Your task to perform on an android device: clear history in the chrome app Image 0: 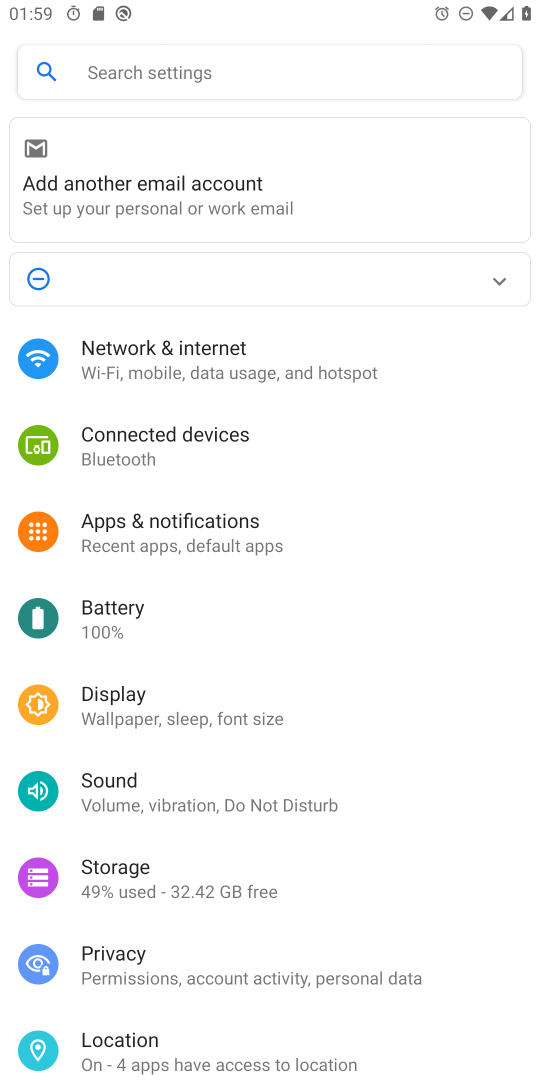
Step 0: press home button
Your task to perform on an android device: clear history in the chrome app Image 1: 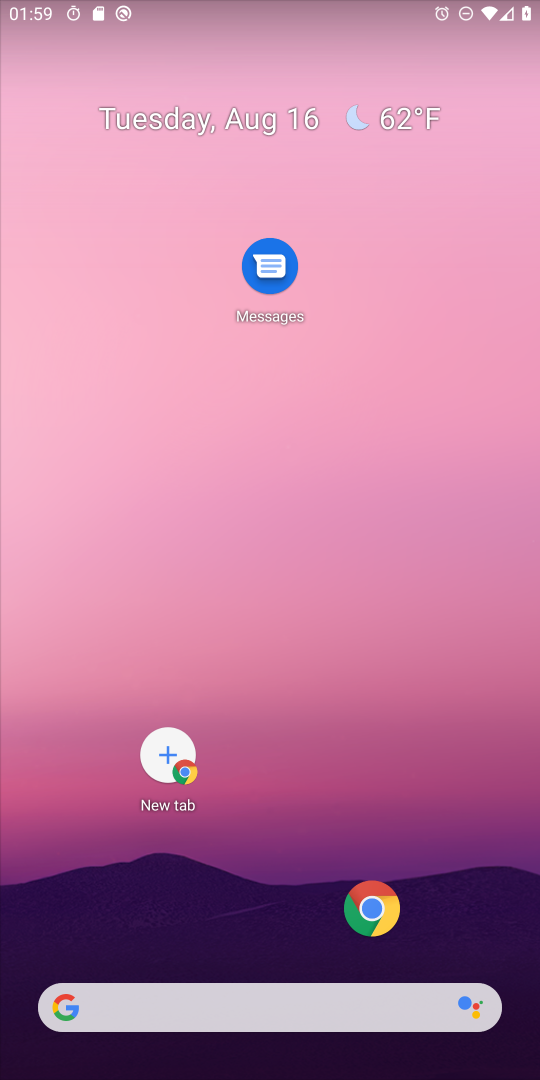
Step 1: click (354, 895)
Your task to perform on an android device: clear history in the chrome app Image 2: 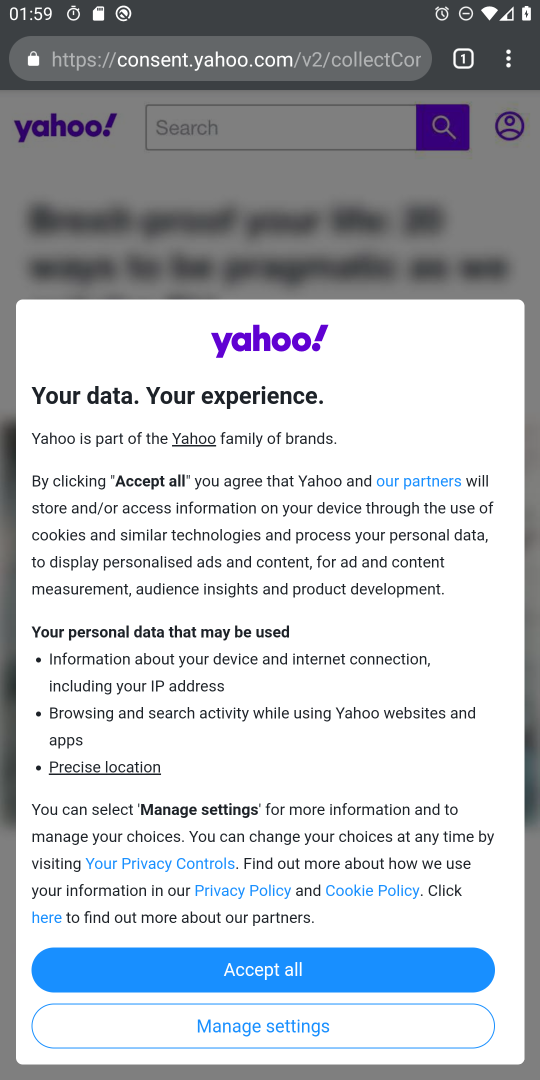
Step 2: click (523, 67)
Your task to perform on an android device: clear history in the chrome app Image 3: 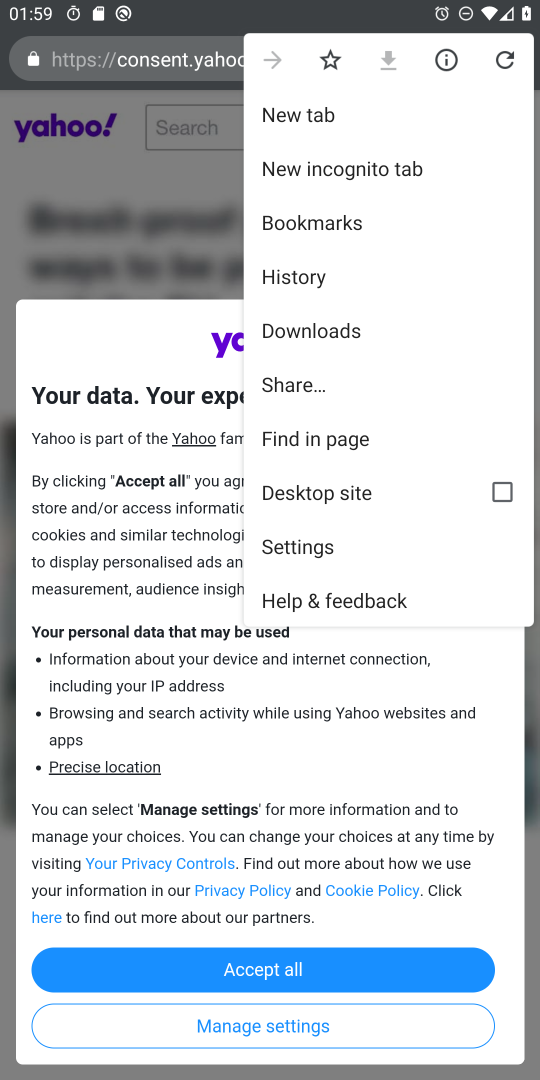
Step 3: click (320, 543)
Your task to perform on an android device: clear history in the chrome app Image 4: 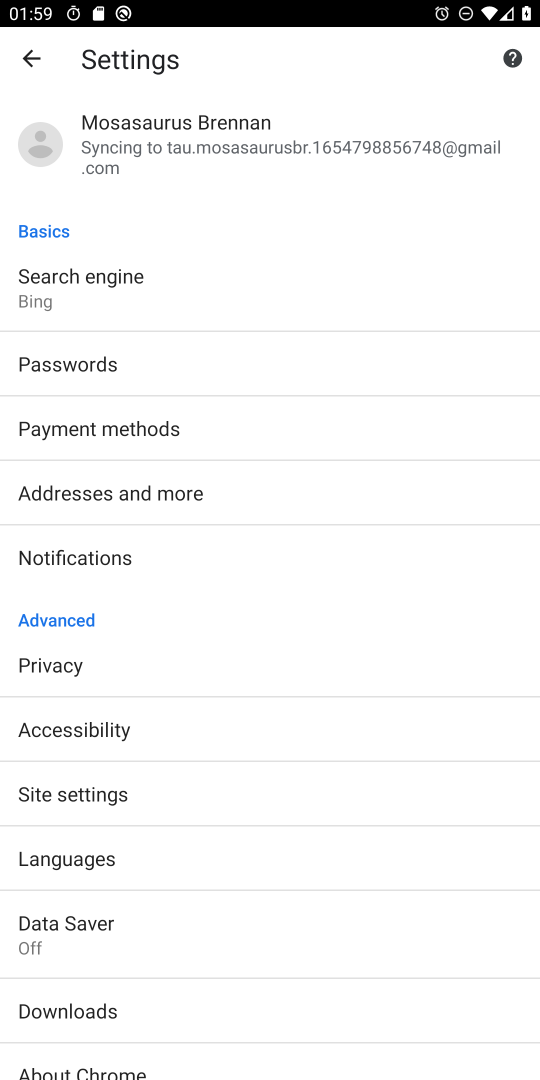
Step 4: click (31, 74)
Your task to perform on an android device: clear history in the chrome app Image 5: 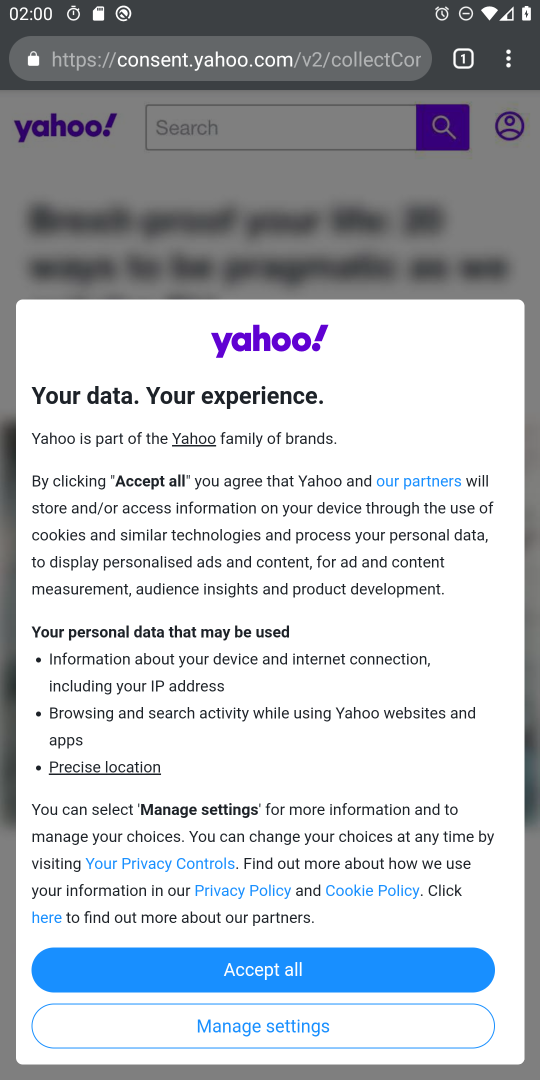
Step 5: click (515, 50)
Your task to perform on an android device: clear history in the chrome app Image 6: 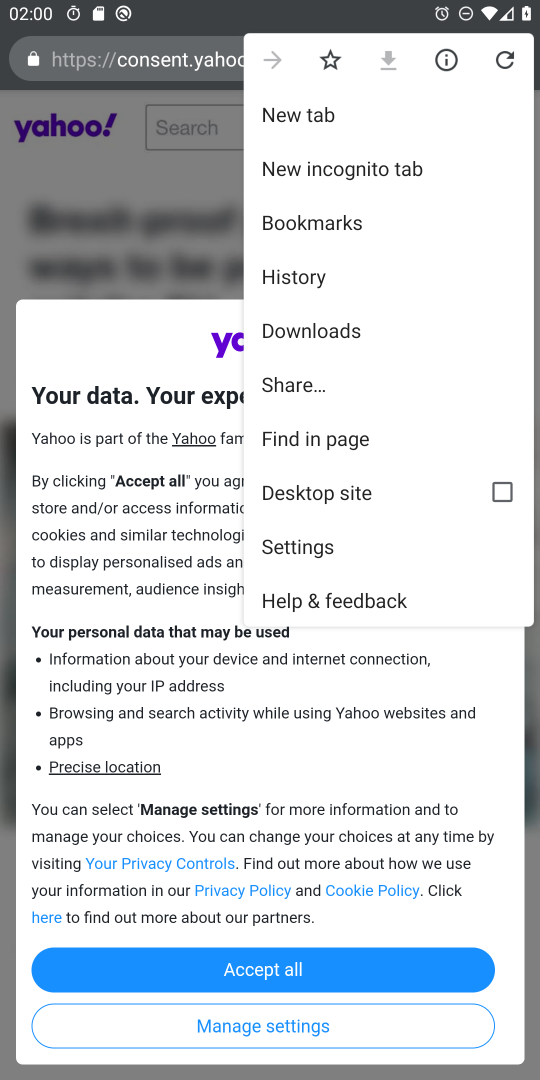
Step 6: click (351, 267)
Your task to perform on an android device: clear history in the chrome app Image 7: 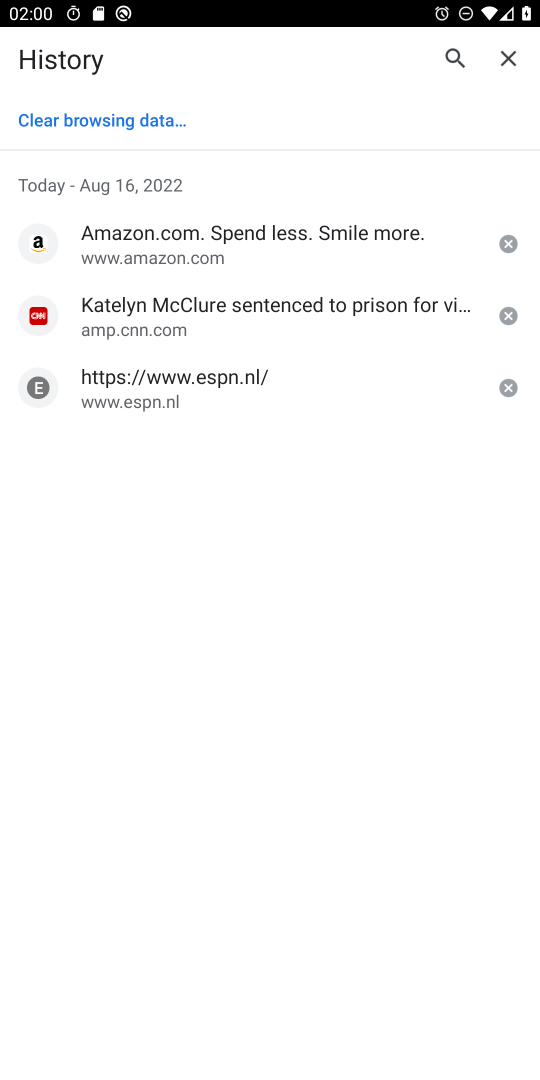
Step 7: click (94, 129)
Your task to perform on an android device: clear history in the chrome app Image 8: 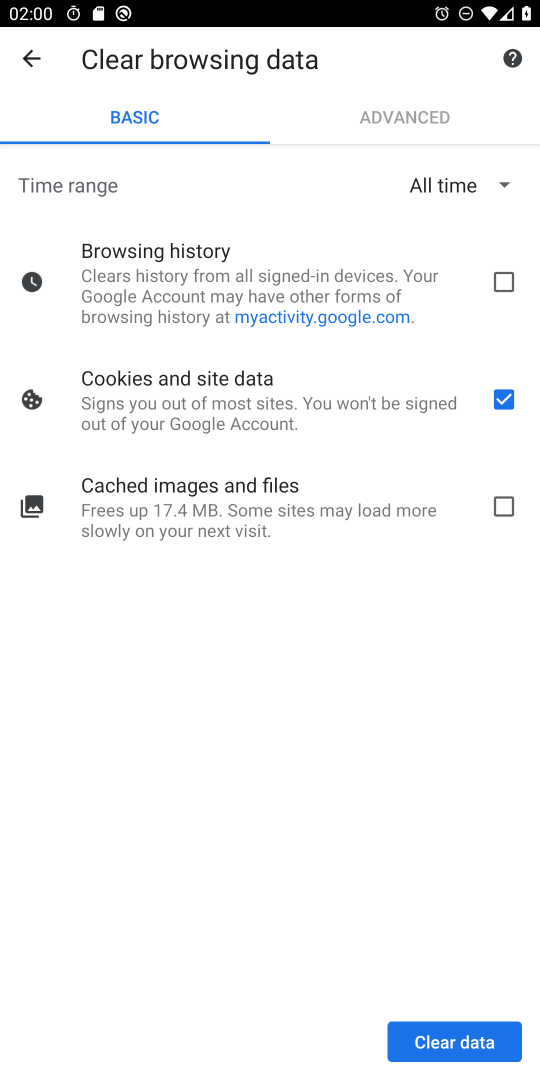
Step 8: click (512, 292)
Your task to perform on an android device: clear history in the chrome app Image 9: 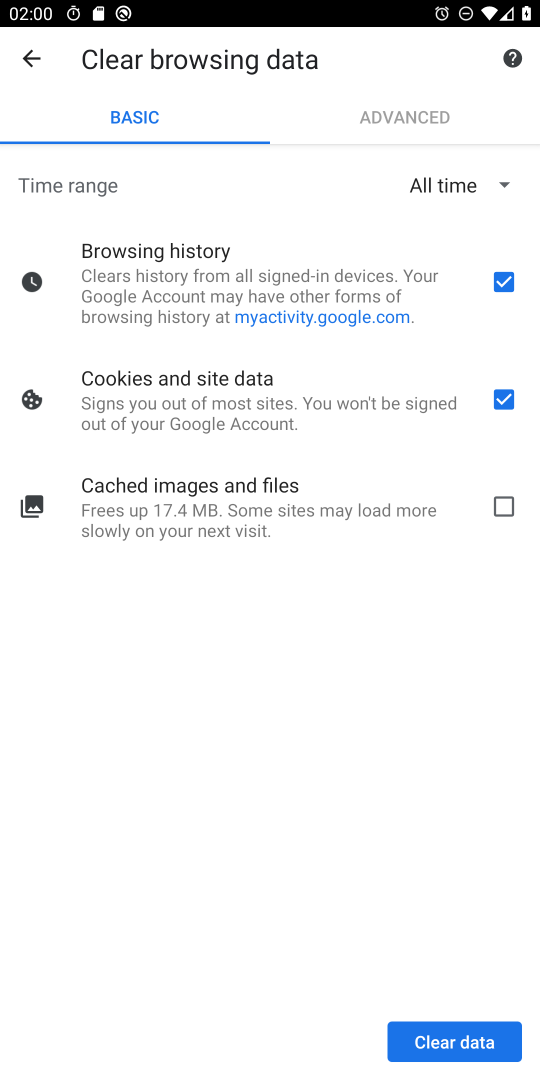
Step 9: click (506, 514)
Your task to perform on an android device: clear history in the chrome app Image 10: 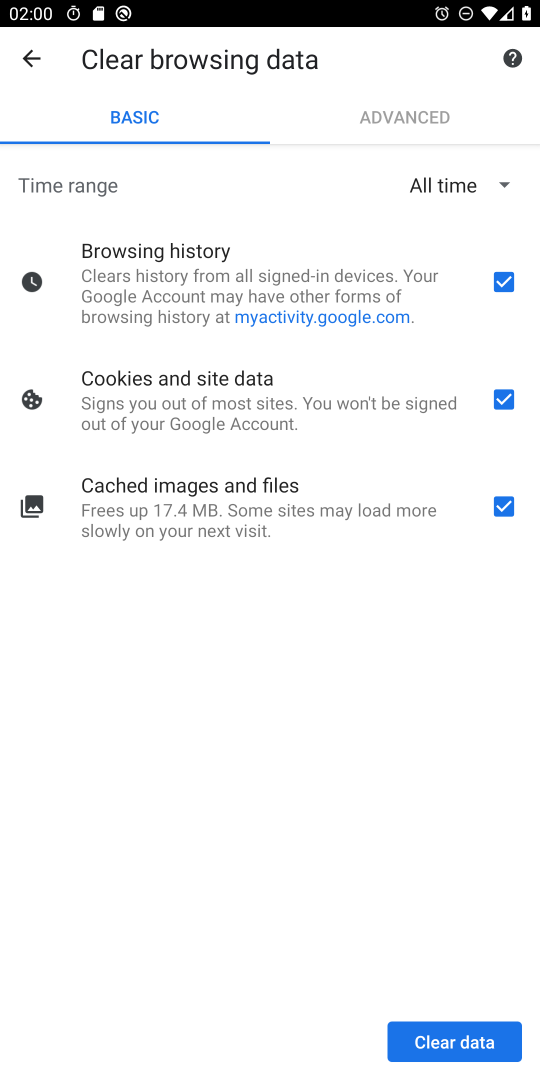
Step 10: click (436, 1040)
Your task to perform on an android device: clear history in the chrome app Image 11: 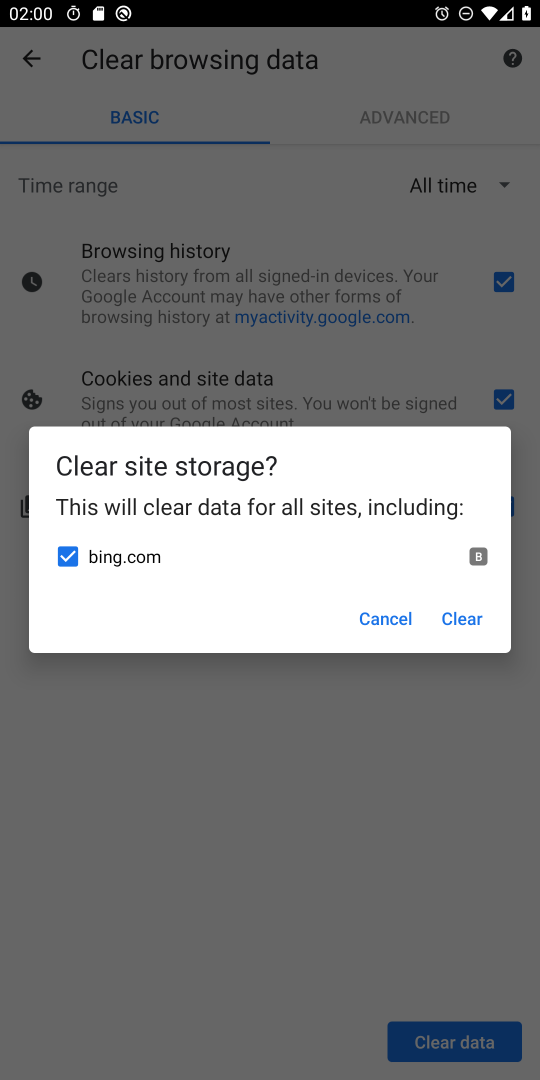
Step 11: click (474, 617)
Your task to perform on an android device: clear history in the chrome app Image 12: 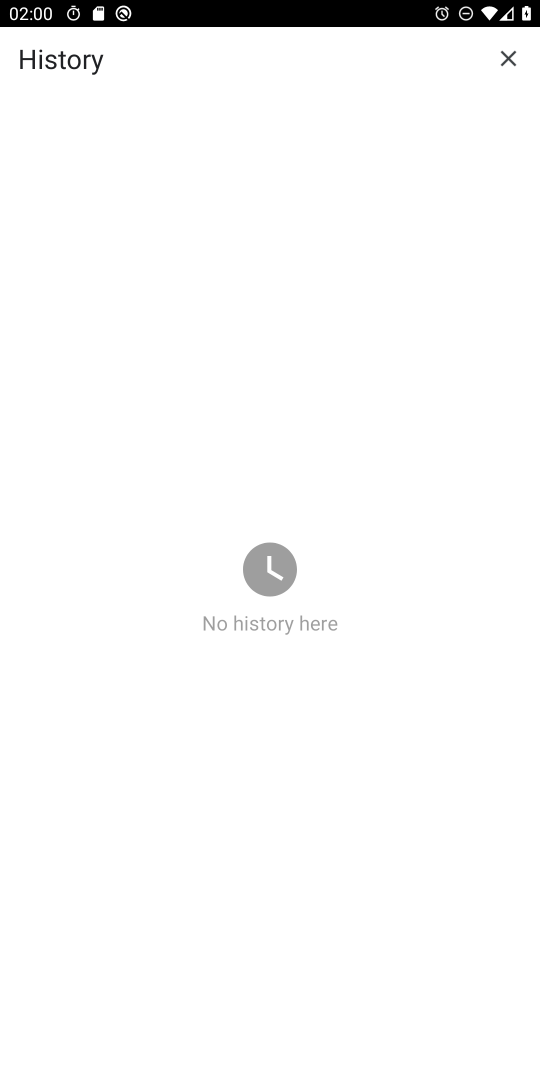
Step 12: task complete